Your task to perform on an android device: Check the weather Image 0: 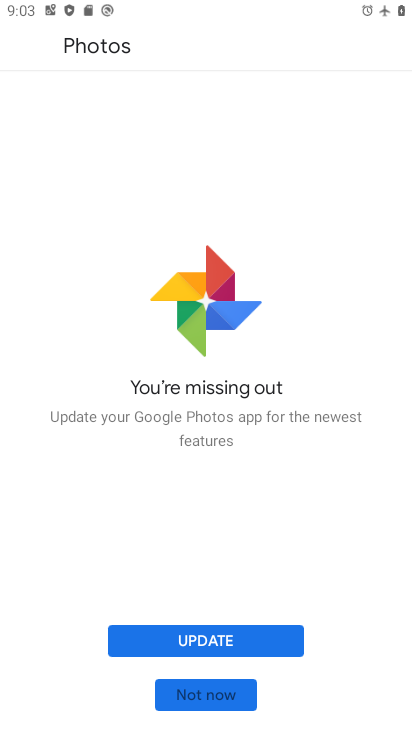
Step 0: press home button
Your task to perform on an android device: Check the weather Image 1: 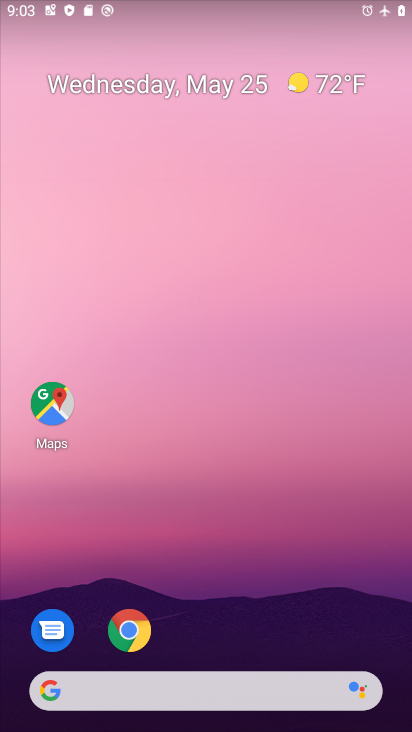
Step 1: drag from (220, 600) to (227, 204)
Your task to perform on an android device: Check the weather Image 2: 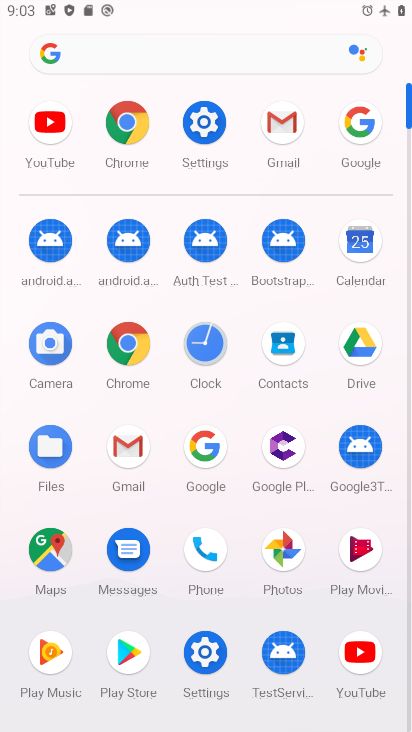
Step 2: click (212, 452)
Your task to perform on an android device: Check the weather Image 3: 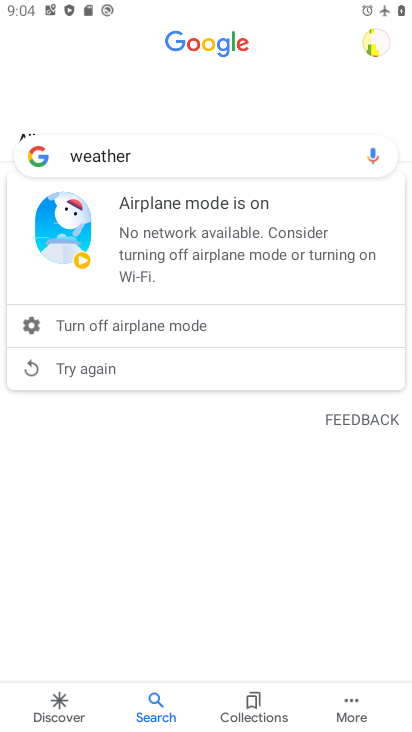
Step 3: task complete